Your task to perform on an android device: change your default location settings in chrome Image 0: 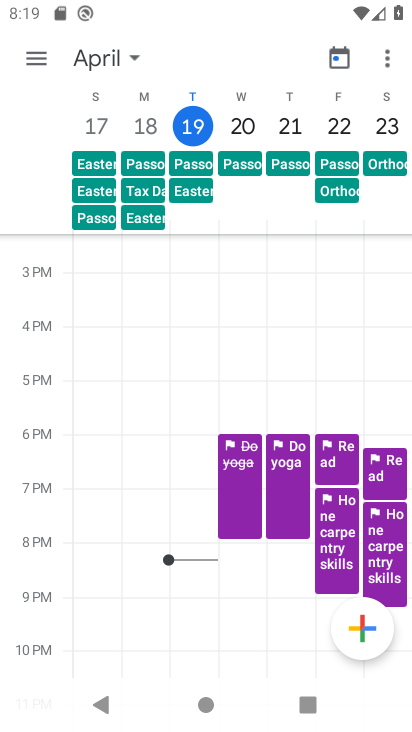
Step 0: press home button
Your task to perform on an android device: change your default location settings in chrome Image 1: 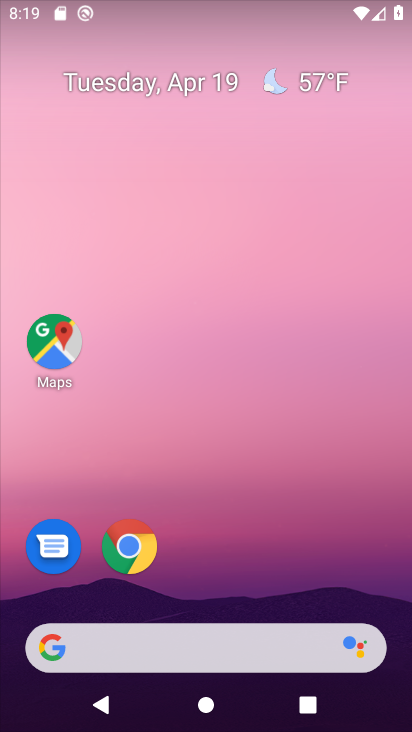
Step 1: click (116, 560)
Your task to perform on an android device: change your default location settings in chrome Image 2: 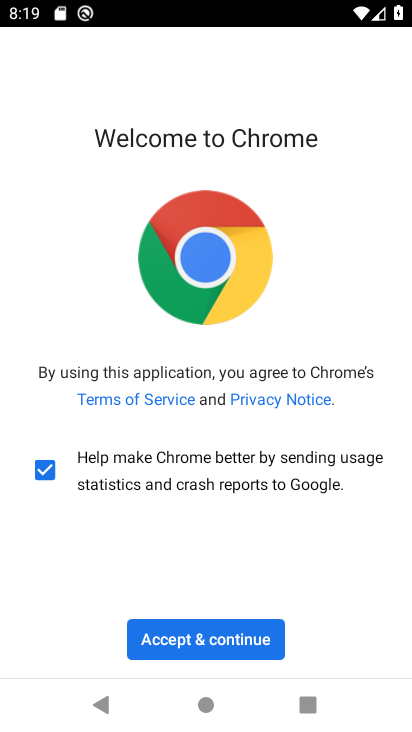
Step 2: click (191, 638)
Your task to perform on an android device: change your default location settings in chrome Image 3: 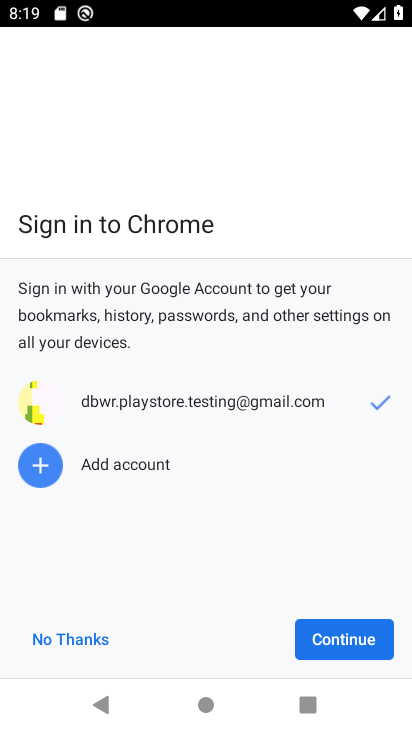
Step 3: click (369, 644)
Your task to perform on an android device: change your default location settings in chrome Image 4: 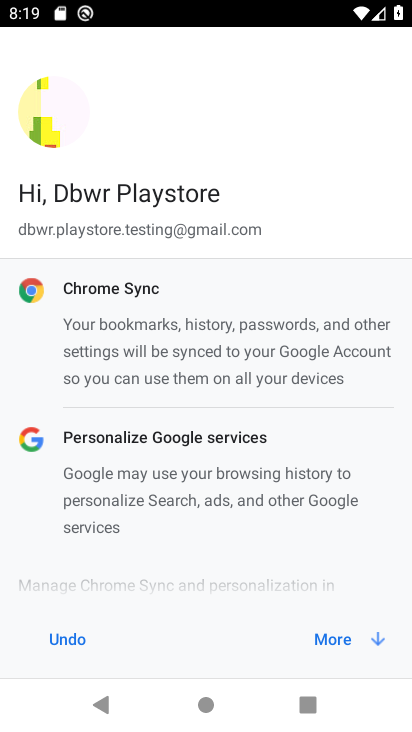
Step 4: click (369, 644)
Your task to perform on an android device: change your default location settings in chrome Image 5: 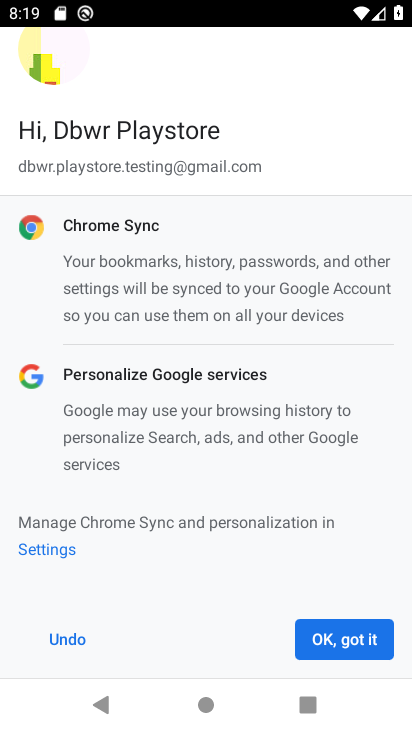
Step 5: click (356, 637)
Your task to perform on an android device: change your default location settings in chrome Image 6: 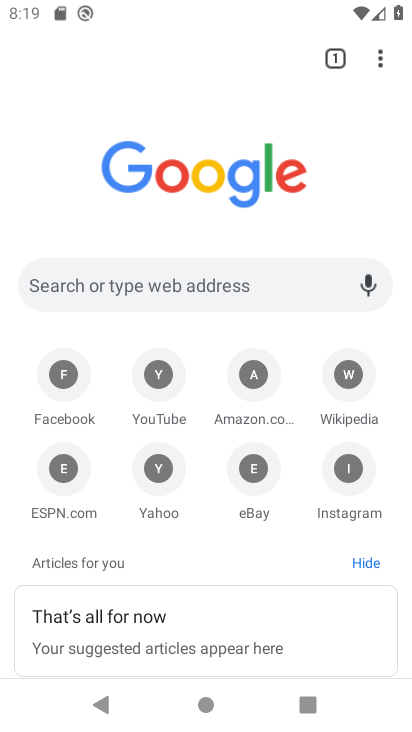
Step 6: click (380, 59)
Your task to perform on an android device: change your default location settings in chrome Image 7: 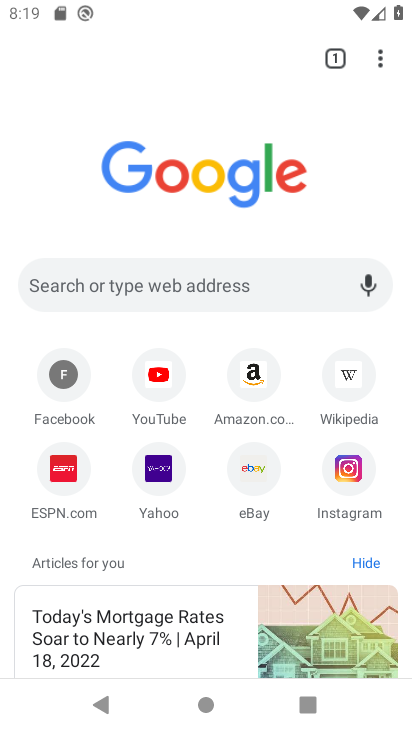
Step 7: click (386, 55)
Your task to perform on an android device: change your default location settings in chrome Image 8: 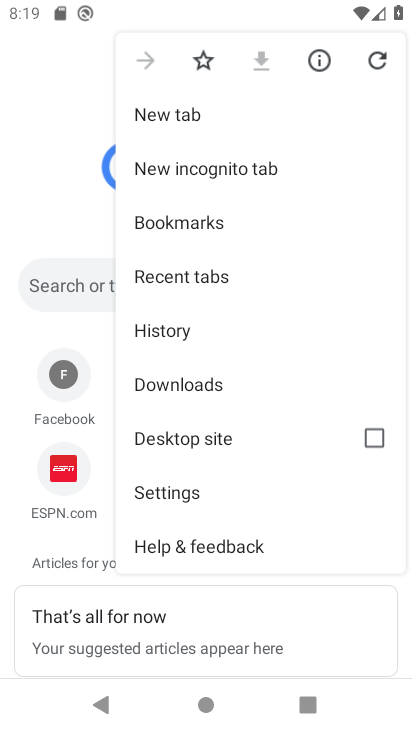
Step 8: click (178, 494)
Your task to perform on an android device: change your default location settings in chrome Image 9: 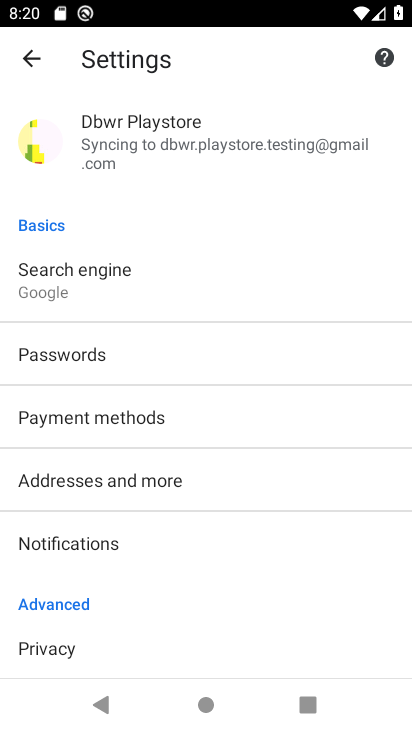
Step 9: drag from (147, 580) to (225, 2)
Your task to perform on an android device: change your default location settings in chrome Image 10: 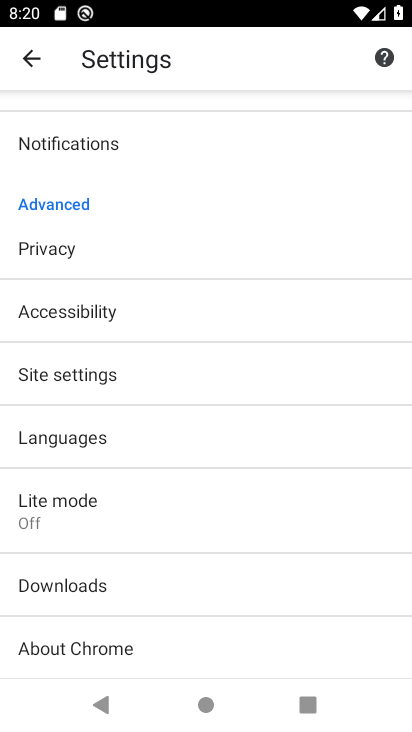
Step 10: click (96, 376)
Your task to perform on an android device: change your default location settings in chrome Image 11: 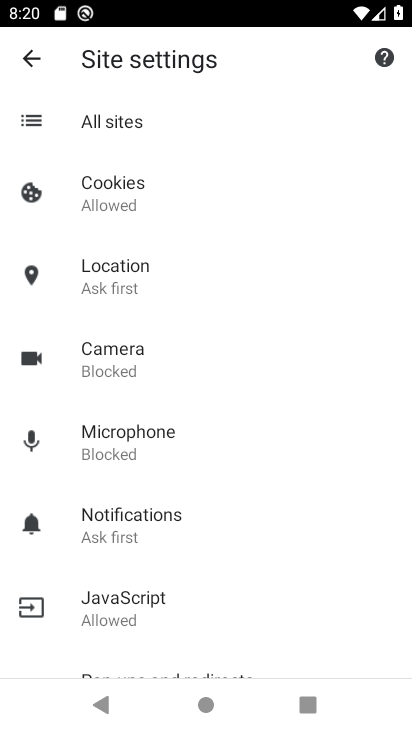
Step 11: click (131, 275)
Your task to perform on an android device: change your default location settings in chrome Image 12: 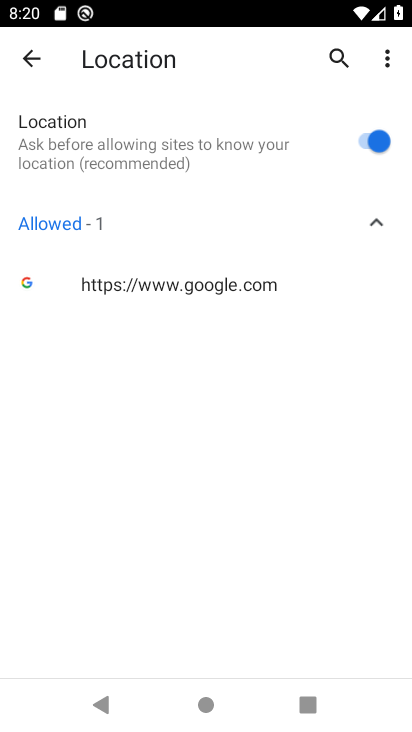
Step 12: click (361, 133)
Your task to perform on an android device: change your default location settings in chrome Image 13: 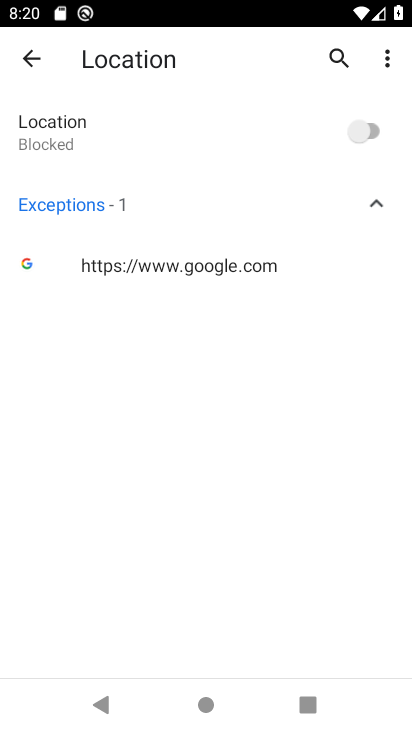
Step 13: task complete